Your task to perform on an android device: Go to Wikipedia Image 0: 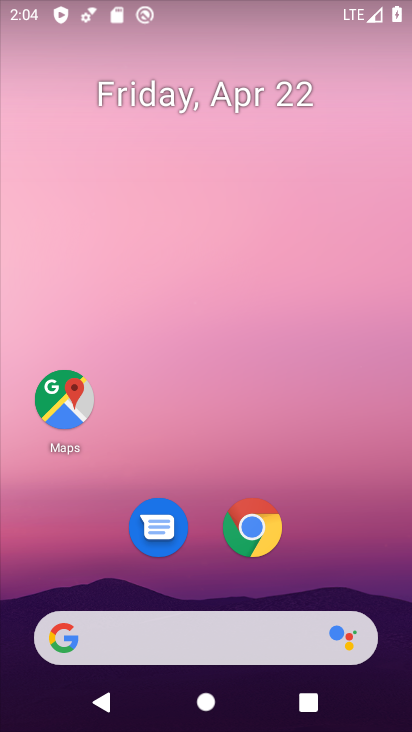
Step 0: click (238, 525)
Your task to perform on an android device: Go to Wikipedia Image 1: 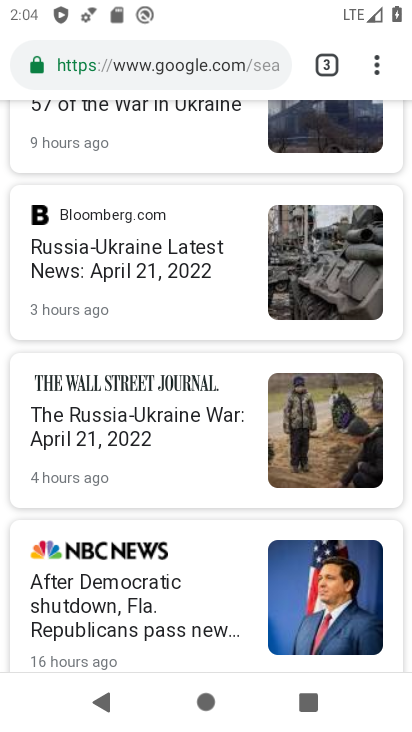
Step 1: click (332, 68)
Your task to perform on an android device: Go to Wikipedia Image 2: 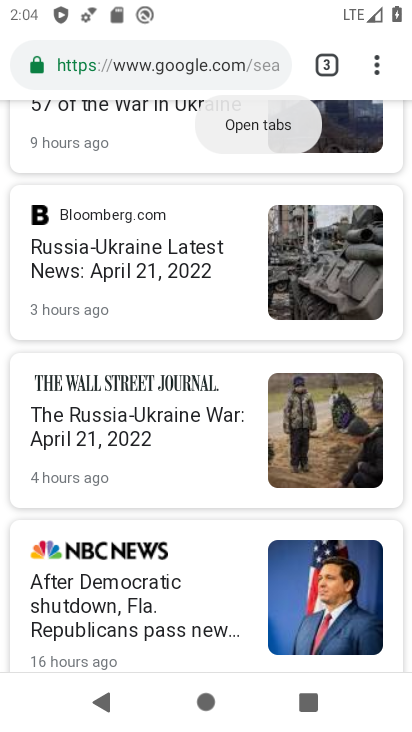
Step 2: click (328, 67)
Your task to perform on an android device: Go to Wikipedia Image 3: 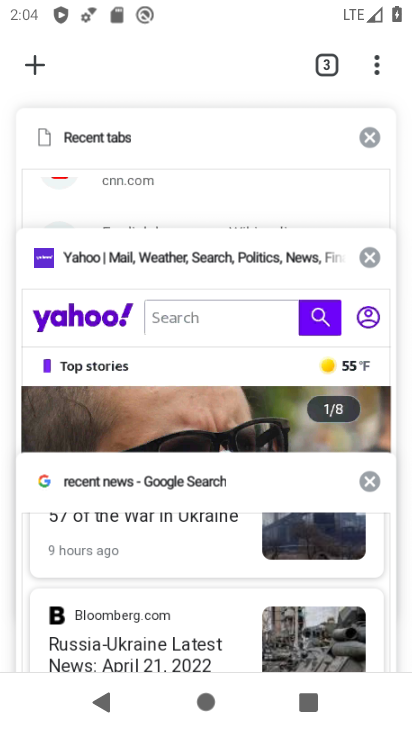
Step 3: click (28, 61)
Your task to perform on an android device: Go to Wikipedia Image 4: 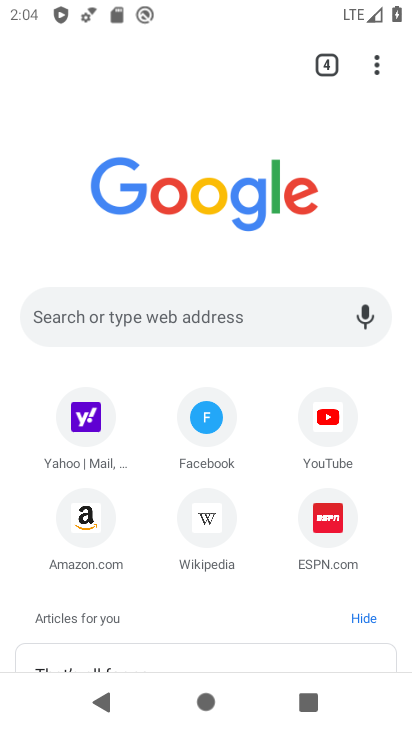
Step 4: click (204, 525)
Your task to perform on an android device: Go to Wikipedia Image 5: 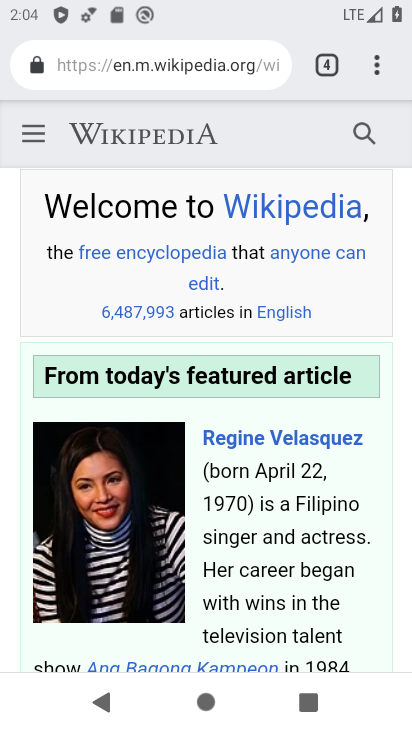
Step 5: task complete